Your task to perform on an android device: Open the stopwatch Image 0: 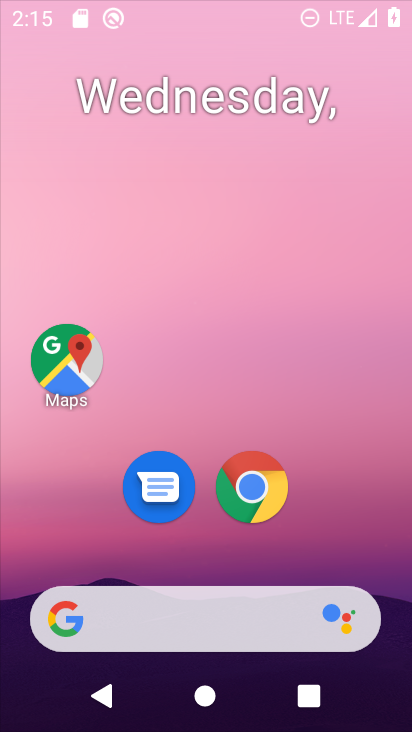
Step 0: drag from (302, 245) to (233, 63)
Your task to perform on an android device: Open the stopwatch Image 1: 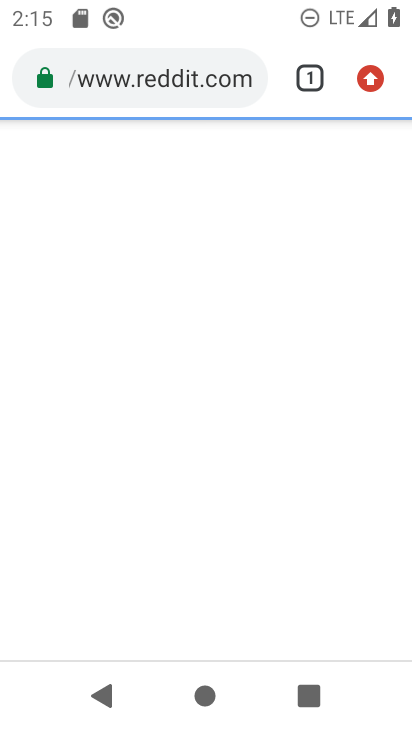
Step 1: press home button
Your task to perform on an android device: Open the stopwatch Image 2: 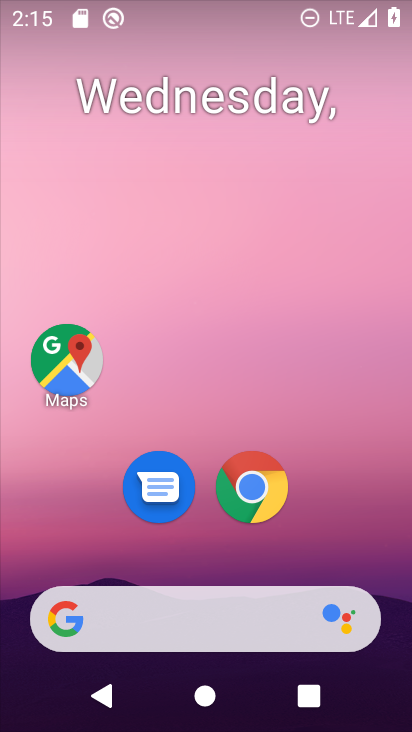
Step 2: drag from (396, 611) to (220, 62)
Your task to perform on an android device: Open the stopwatch Image 3: 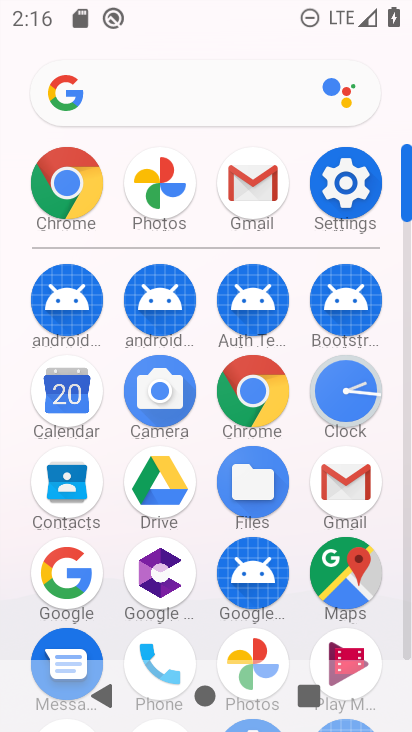
Step 3: click (333, 413)
Your task to perform on an android device: Open the stopwatch Image 4: 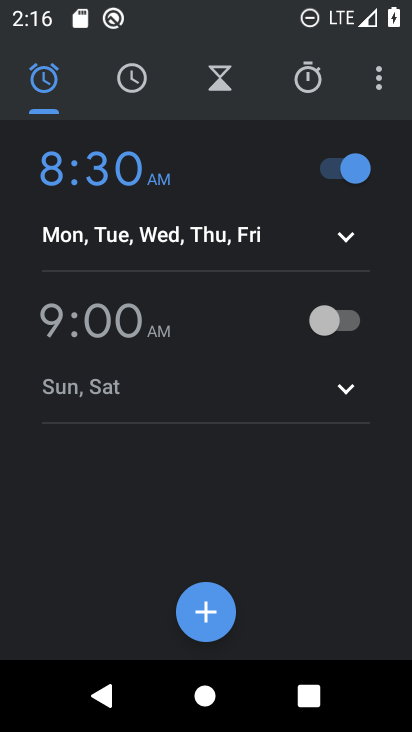
Step 4: click (306, 91)
Your task to perform on an android device: Open the stopwatch Image 5: 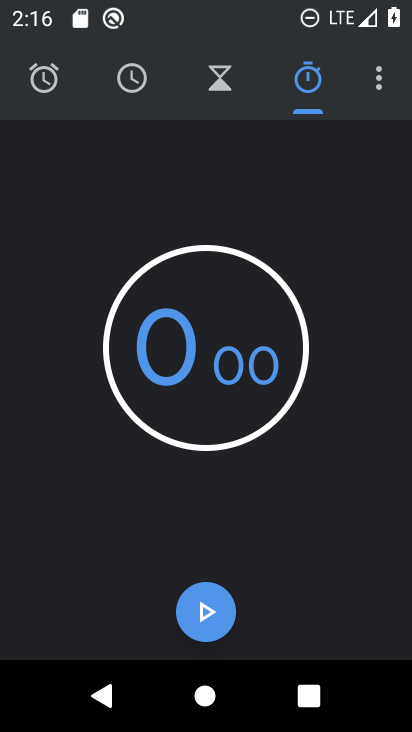
Step 5: task complete